Your task to perform on an android device: delete browsing data in the chrome app Image 0: 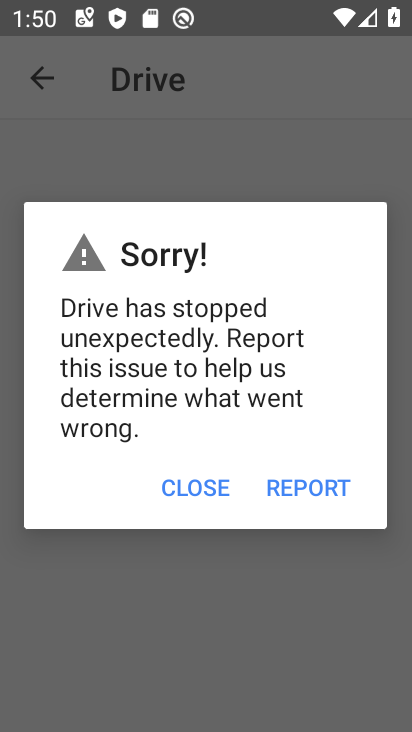
Step 0: press home button
Your task to perform on an android device: delete browsing data in the chrome app Image 1: 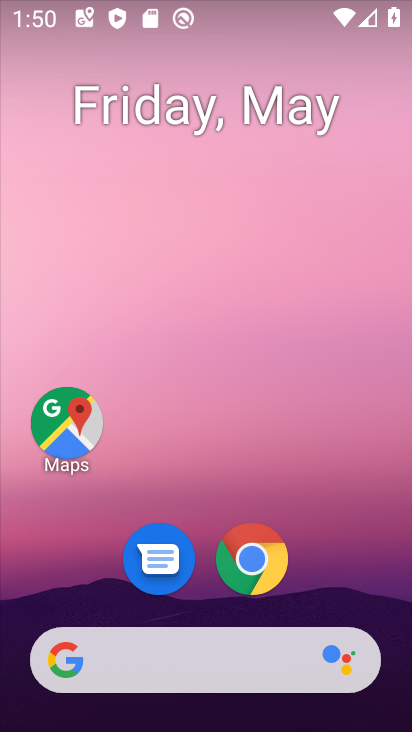
Step 1: click (259, 581)
Your task to perform on an android device: delete browsing data in the chrome app Image 2: 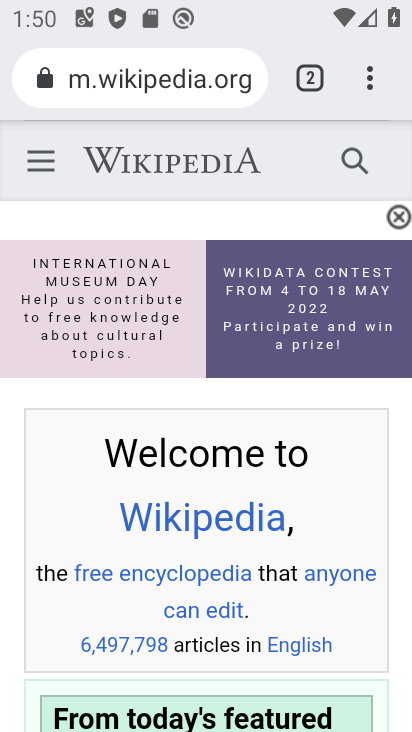
Step 2: drag from (365, 82) to (225, 439)
Your task to perform on an android device: delete browsing data in the chrome app Image 3: 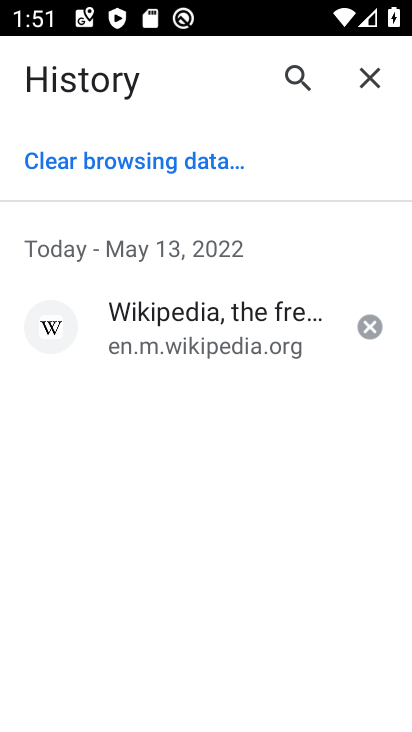
Step 3: click (132, 162)
Your task to perform on an android device: delete browsing data in the chrome app Image 4: 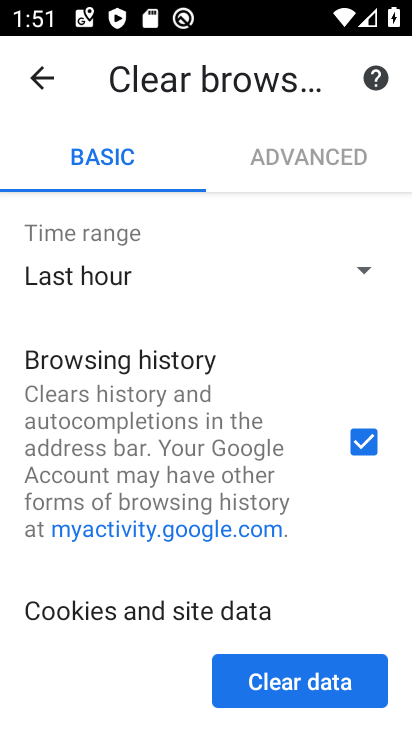
Step 4: drag from (352, 544) to (346, 209)
Your task to perform on an android device: delete browsing data in the chrome app Image 5: 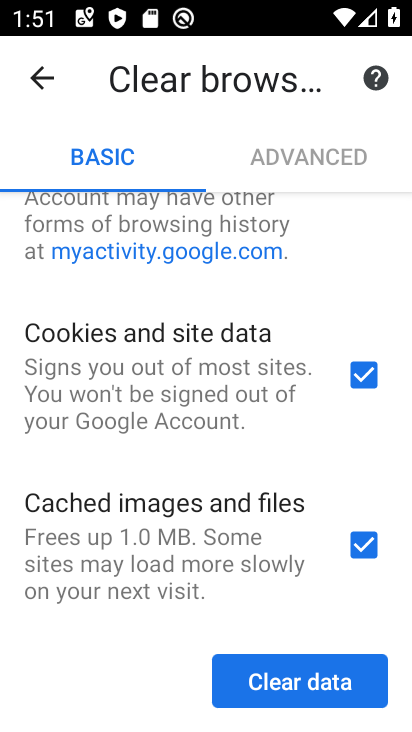
Step 5: click (362, 368)
Your task to perform on an android device: delete browsing data in the chrome app Image 6: 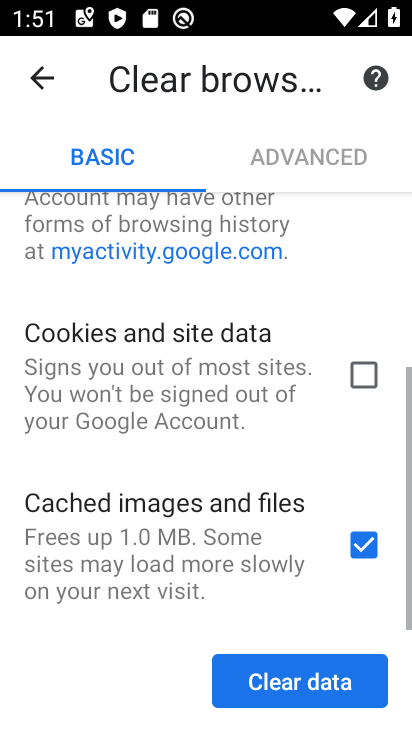
Step 6: click (372, 547)
Your task to perform on an android device: delete browsing data in the chrome app Image 7: 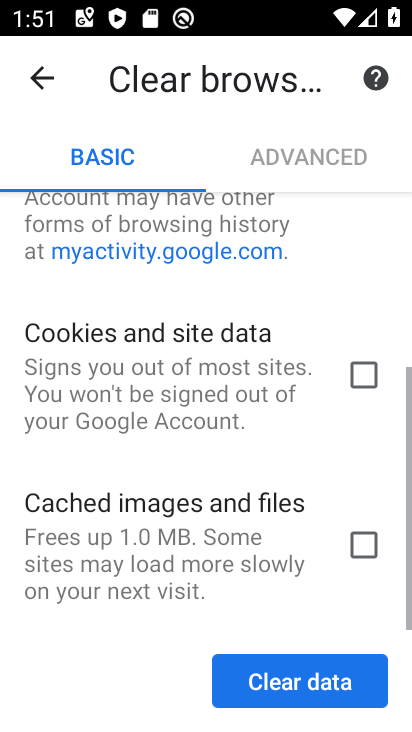
Step 7: click (287, 687)
Your task to perform on an android device: delete browsing data in the chrome app Image 8: 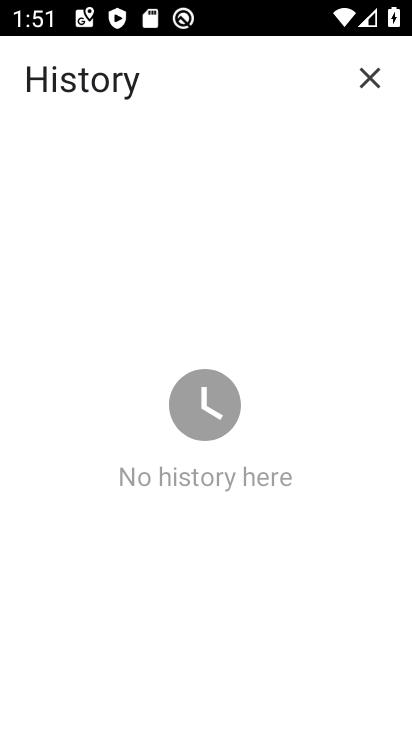
Step 8: task complete